Your task to perform on an android device: Clear the cart on target.com. Add logitech g502 to the cart on target.com Image 0: 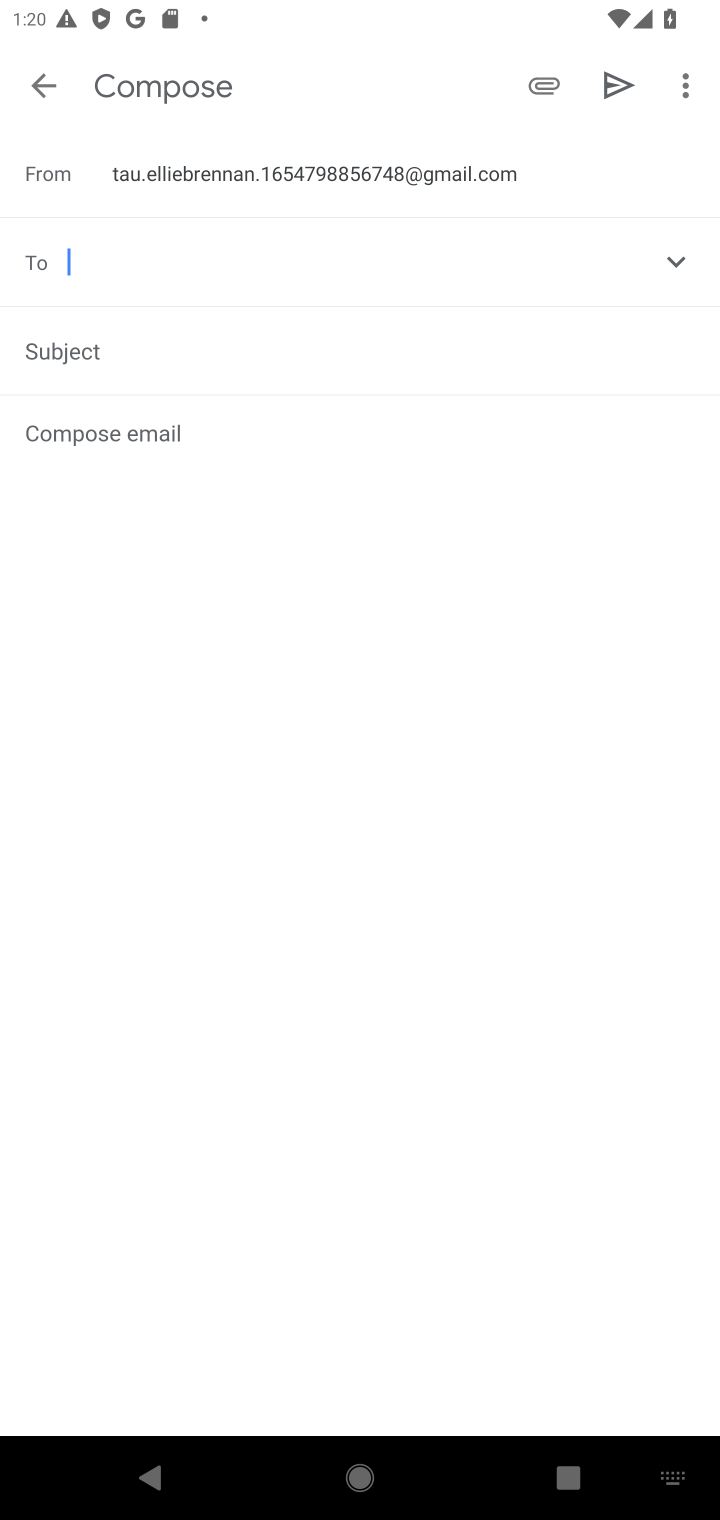
Step 0: task complete